Your task to perform on an android device: allow cookies in the chrome app Image 0: 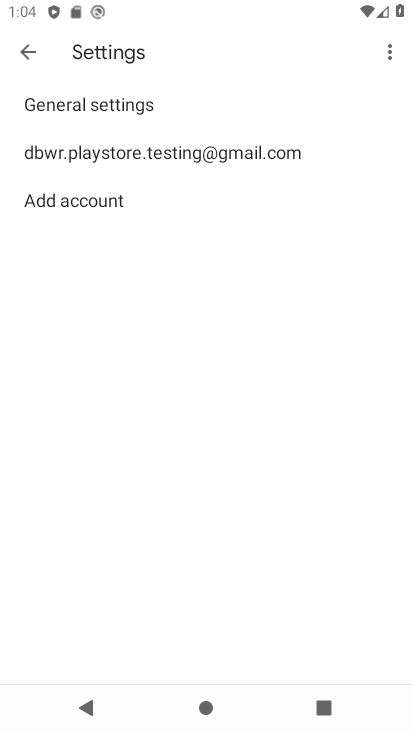
Step 0: press home button
Your task to perform on an android device: allow cookies in the chrome app Image 1: 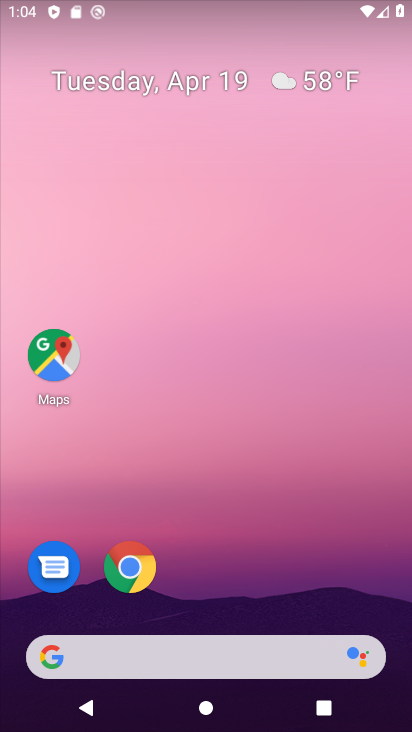
Step 1: click (129, 566)
Your task to perform on an android device: allow cookies in the chrome app Image 2: 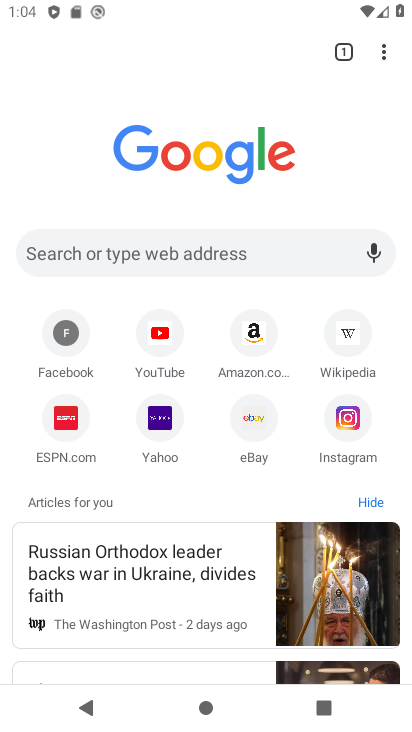
Step 2: click (380, 55)
Your task to perform on an android device: allow cookies in the chrome app Image 3: 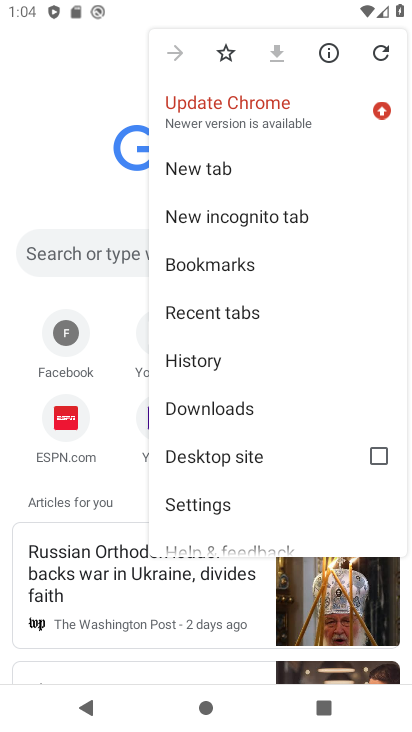
Step 3: drag from (254, 488) to (325, 161)
Your task to perform on an android device: allow cookies in the chrome app Image 4: 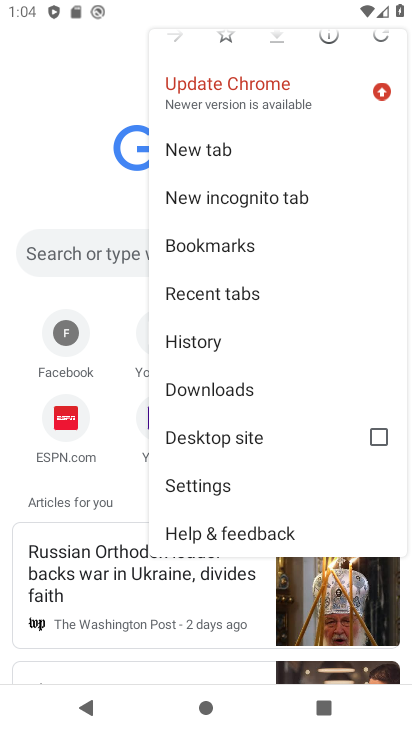
Step 4: click (200, 482)
Your task to perform on an android device: allow cookies in the chrome app Image 5: 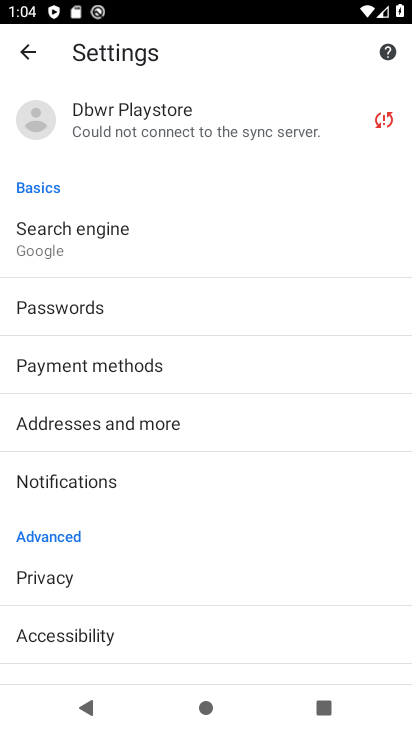
Step 5: drag from (194, 598) to (229, 155)
Your task to perform on an android device: allow cookies in the chrome app Image 6: 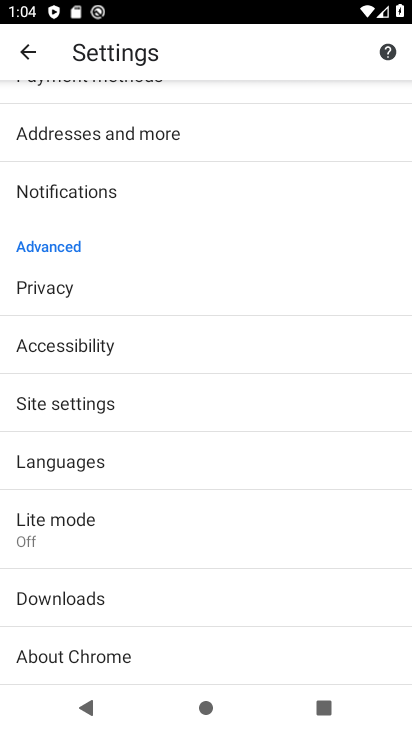
Step 6: click (57, 404)
Your task to perform on an android device: allow cookies in the chrome app Image 7: 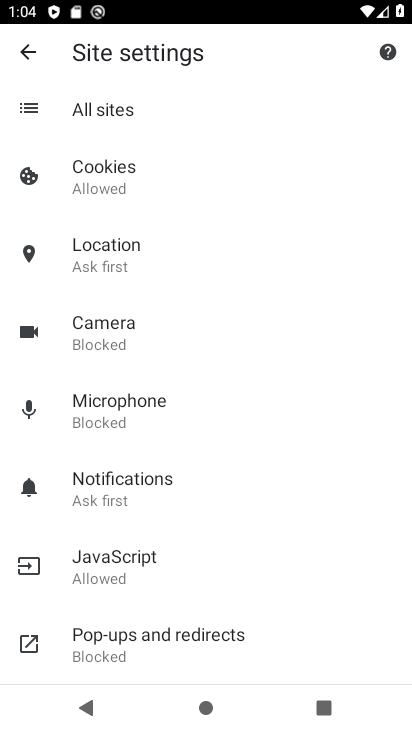
Step 7: click (92, 182)
Your task to perform on an android device: allow cookies in the chrome app Image 8: 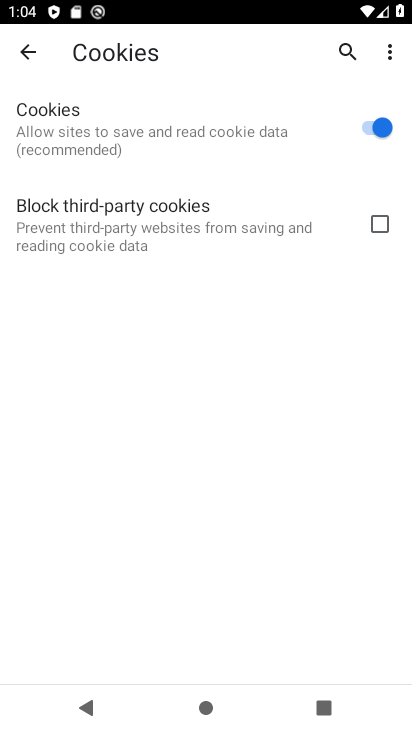
Step 8: task complete